Your task to perform on an android device: View the shopping cart on target.com. Search for dell xps on target.com, select the first entry, and add it to the cart. Image 0: 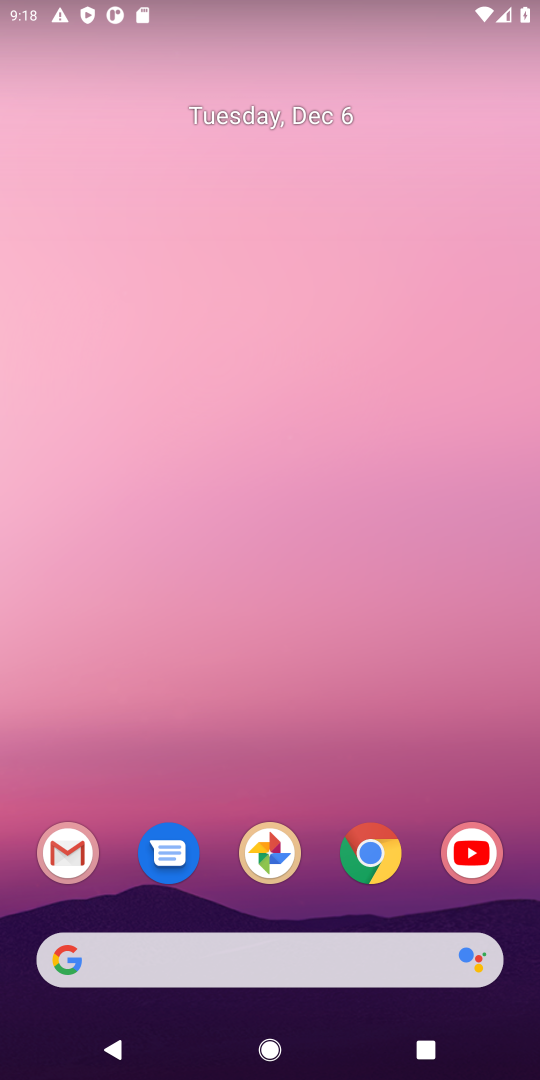
Step 0: task complete